Your task to perform on an android device: Go to eBay Image 0: 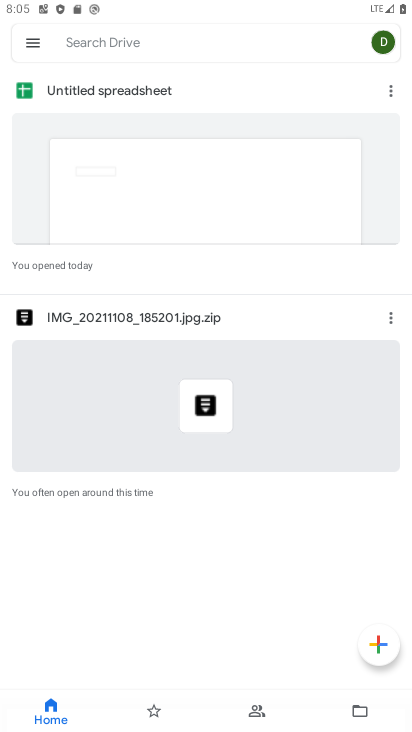
Step 0: press home button
Your task to perform on an android device: Go to eBay Image 1: 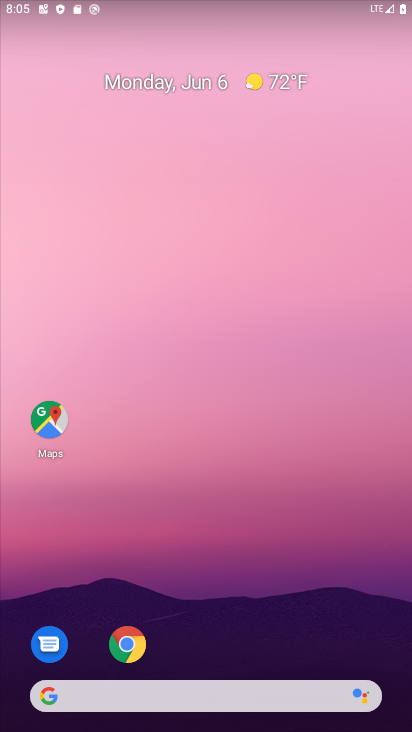
Step 1: drag from (254, 713) to (329, 87)
Your task to perform on an android device: Go to eBay Image 2: 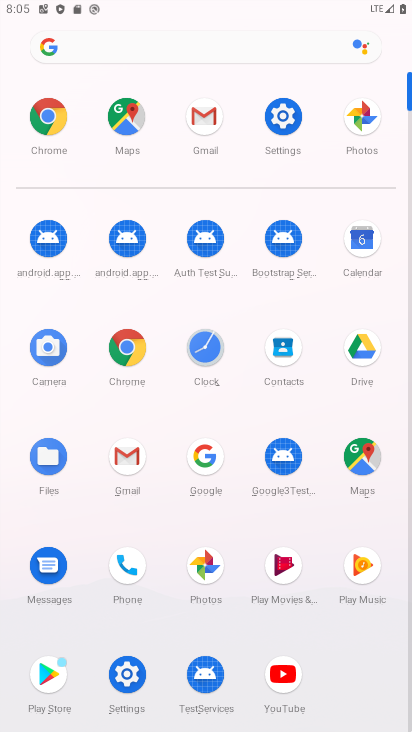
Step 2: click (55, 127)
Your task to perform on an android device: Go to eBay Image 3: 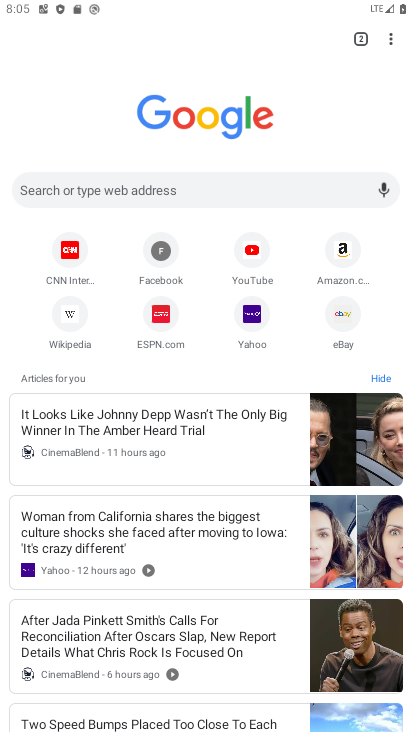
Step 3: click (322, 321)
Your task to perform on an android device: Go to eBay Image 4: 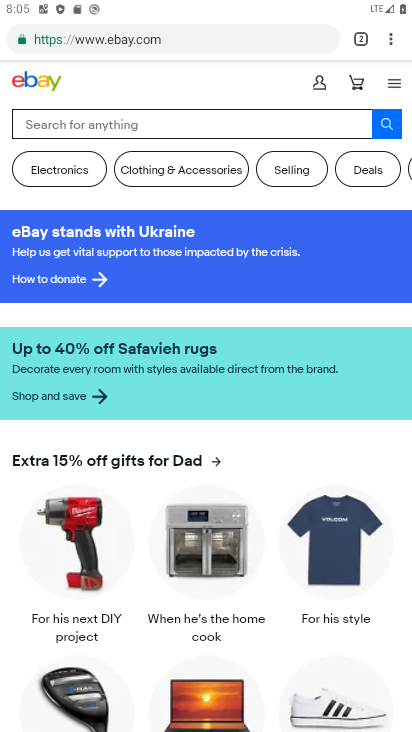
Step 4: task complete